Your task to perform on an android device: manage bookmarks in the chrome app Image 0: 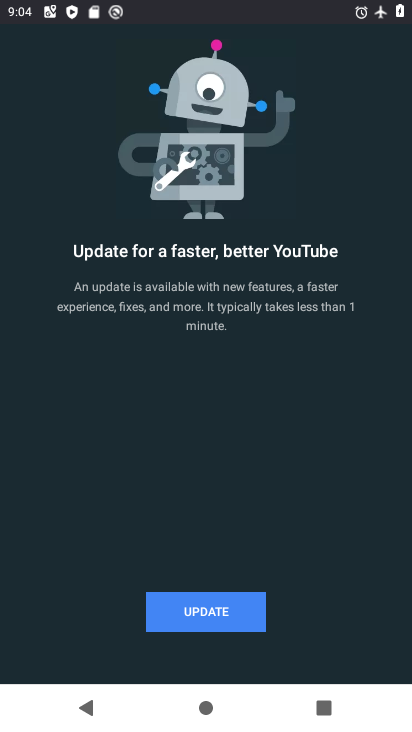
Step 0: press home button
Your task to perform on an android device: manage bookmarks in the chrome app Image 1: 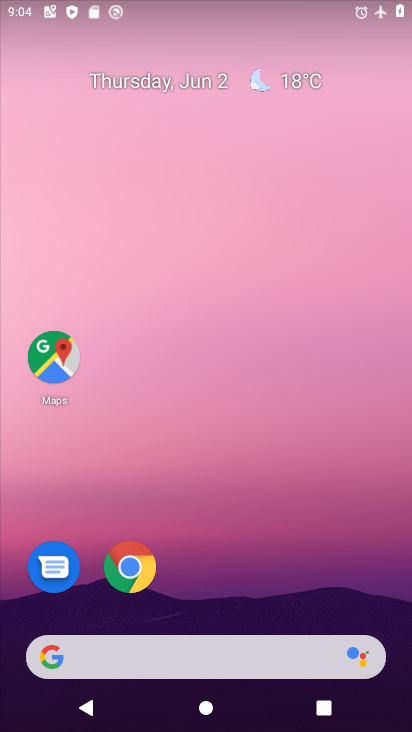
Step 1: click (130, 564)
Your task to perform on an android device: manage bookmarks in the chrome app Image 2: 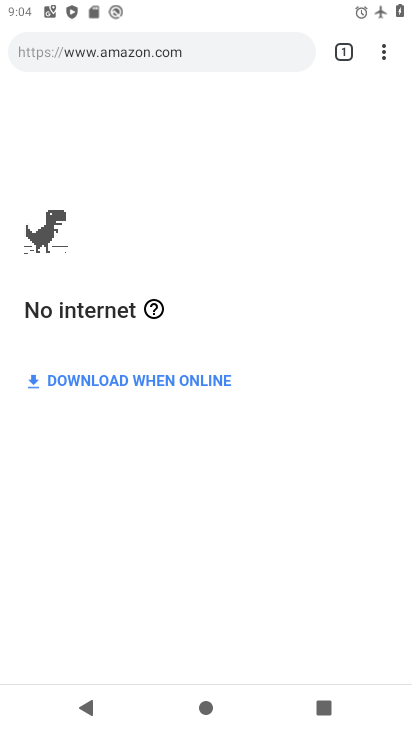
Step 2: click (384, 87)
Your task to perform on an android device: manage bookmarks in the chrome app Image 3: 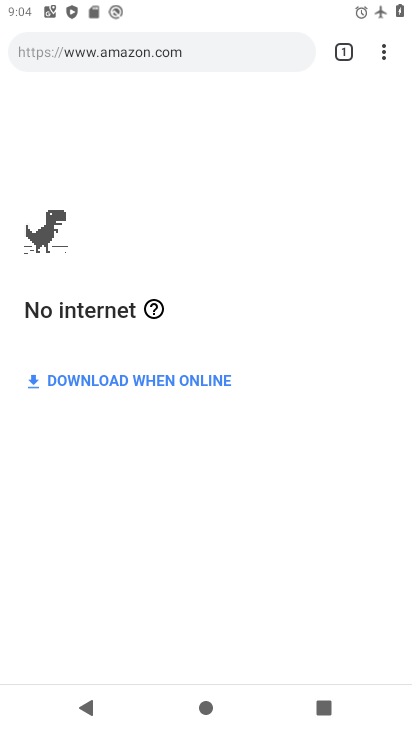
Step 3: click (381, 55)
Your task to perform on an android device: manage bookmarks in the chrome app Image 4: 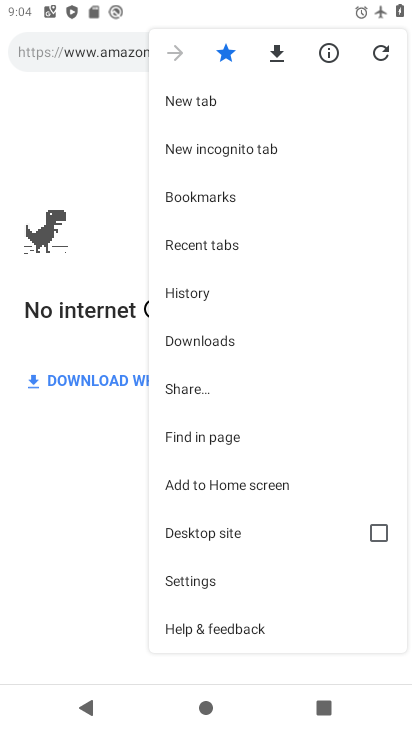
Step 4: click (212, 195)
Your task to perform on an android device: manage bookmarks in the chrome app Image 5: 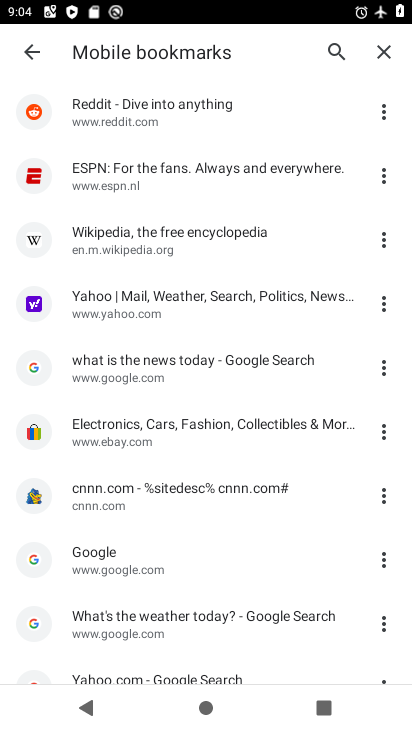
Step 5: click (378, 102)
Your task to perform on an android device: manage bookmarks in the chrome app Image 6: 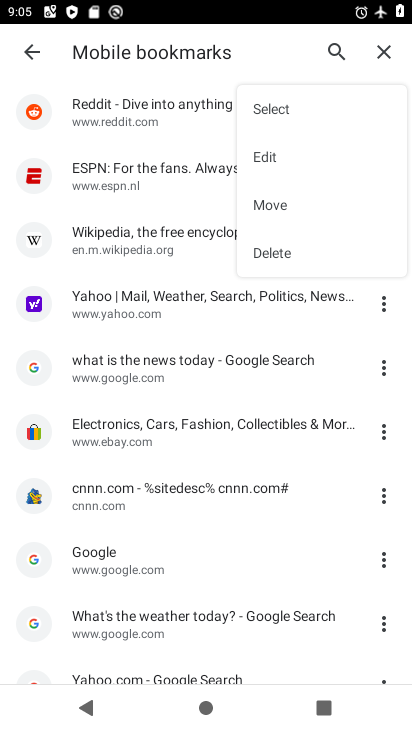
Step 6: click (284, 113)
Your task to perform on an android device: manage bookmarks in the chrome app Image 7: 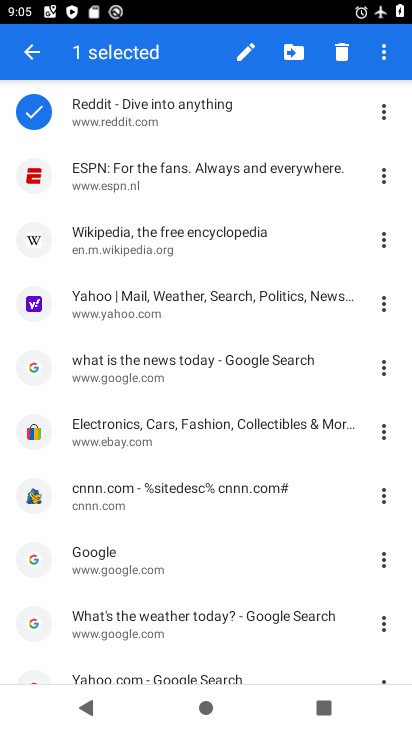
Step 7: click (86, 192)
Your task to perform on an android device: manage bookmarks in the chrome app Image 8: 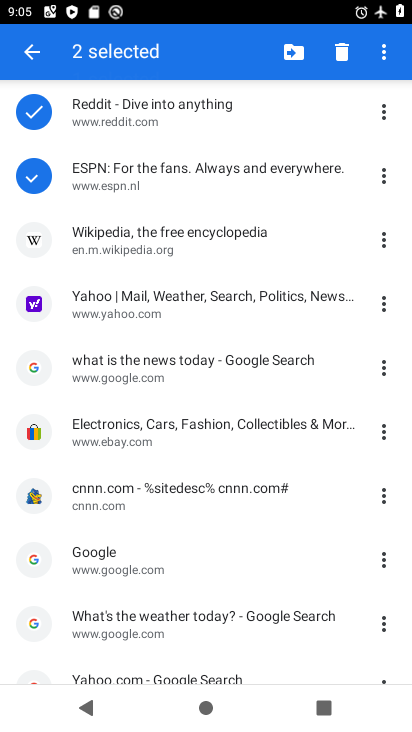
Step 8: click (73, 228)
Your task to perform on an android device: manage bookmarks in the chrome app Image 9: 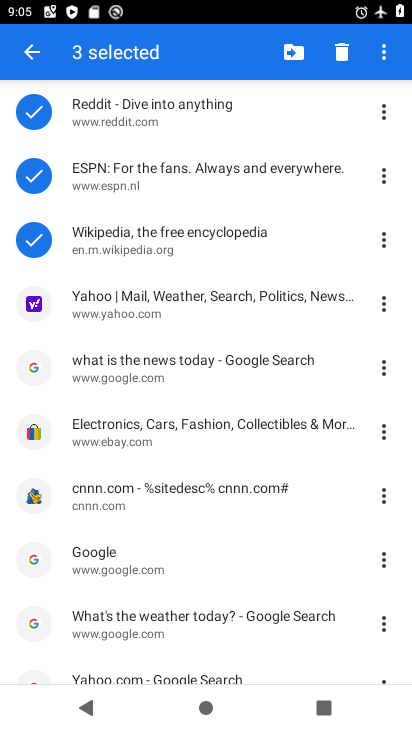
Step 9: click (63, 304)
Your task to perform on an android device: manage bookmarks in the chrome app Image 10: 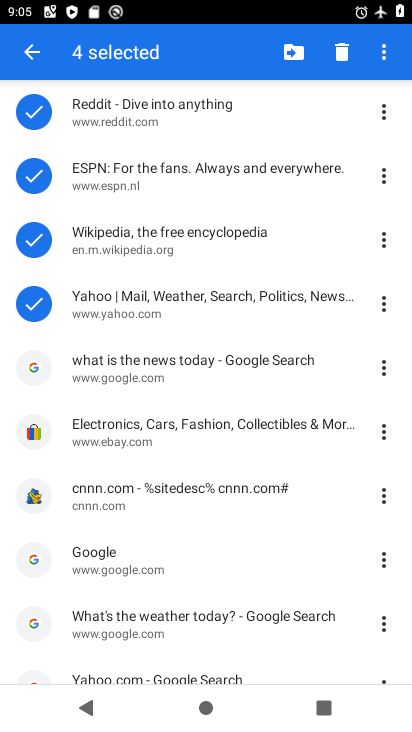
Step 10: click (36, 376)
Your task to perform on an android device: manage bookmarks in the chrome app Image 11: 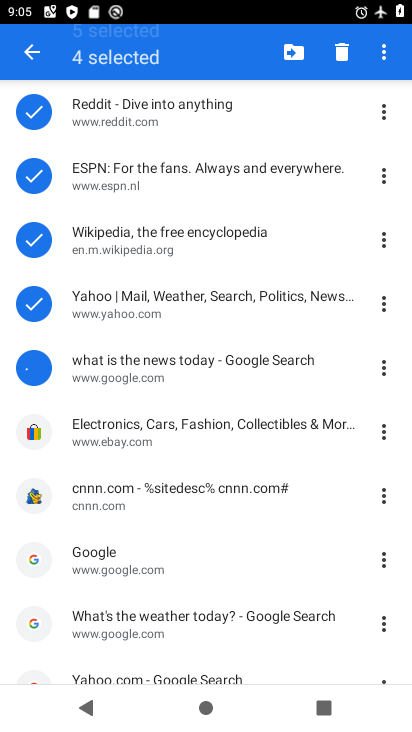
Step 11: click (42, 441)
Your task to perform on an android device: manage bookmarks in the chrome app Image 12: 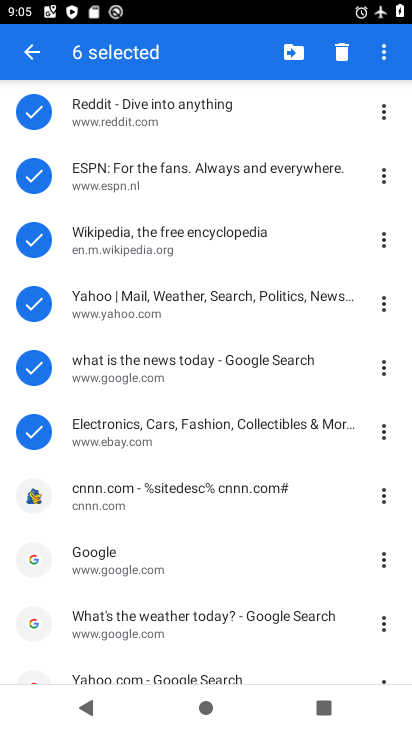
Step 12: click (44, 468)
Your task to perform on an android device: manage bookmarks in the chrome app Image 13: 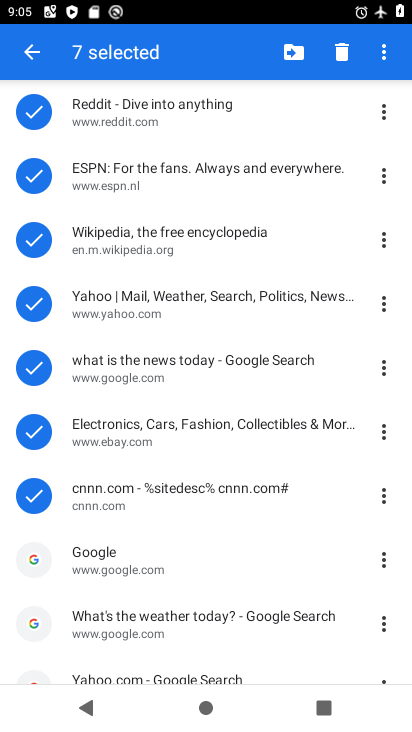
Step 13: click (29, 557)
Your task to perform on an android device: manage bookmarks in the chrome app Image 14: 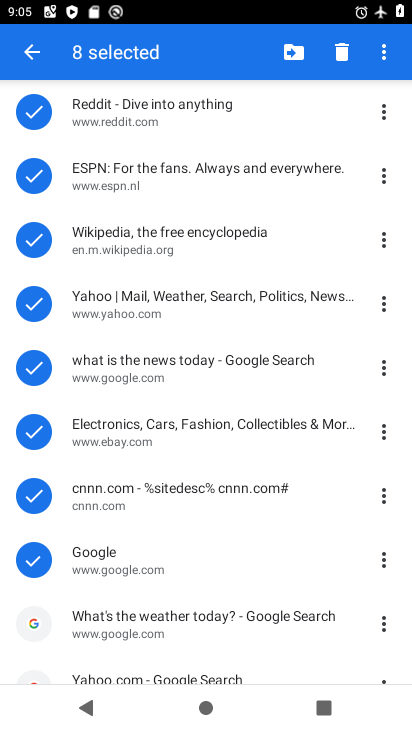
Step 14: click (34, 630)
Your task to perform on an android device: manage bookmarks in the chrome app Image 15: 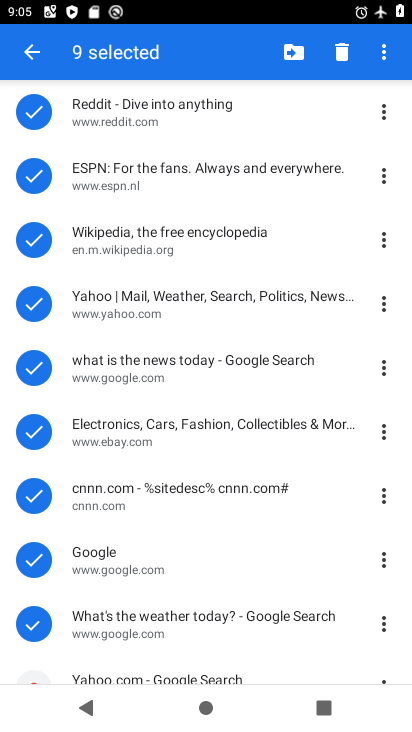
Step 15: drag from (115, 656) to (129, 419)
Your task to perform on an android device: manage bookmarks in the chrome app Image 16: 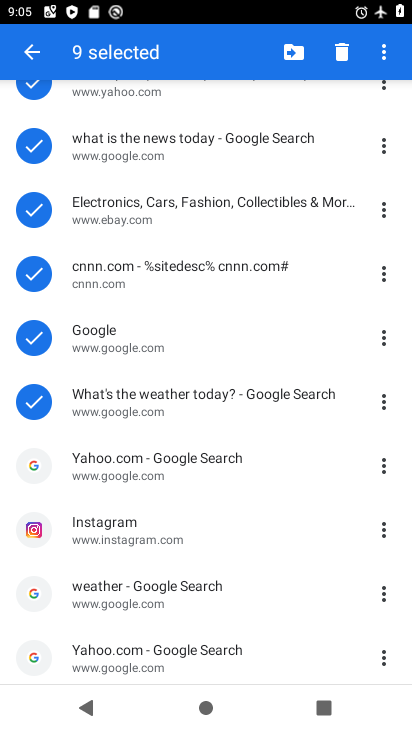
Step 16: click (78, 519)
Your task to perform on an android device: manage bookmarks in the chrome app Image 17: 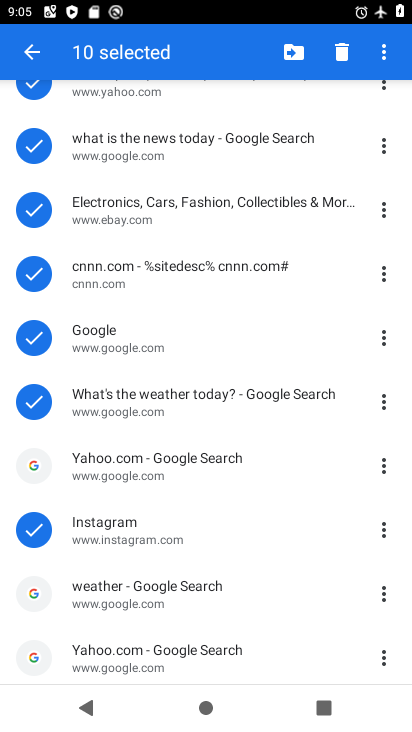
Step 17: click (90, 471)
Your task to perform on an android device: manage bookmarks in the chrome app Image 18: 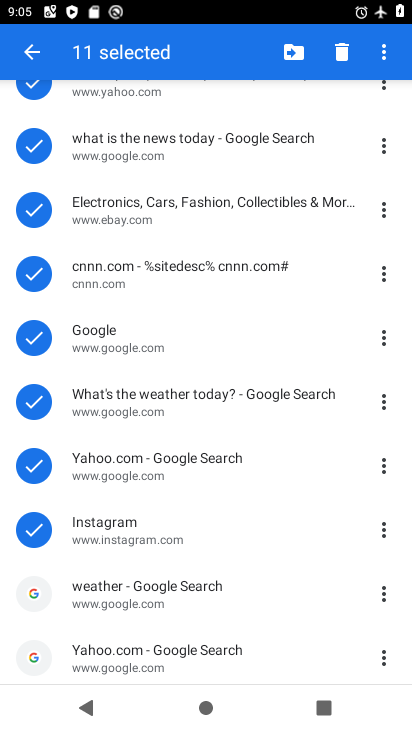
Step 18: click (66, 602)
Your task to perform on an android device: manage bookmarks in the chrome app Image 19: 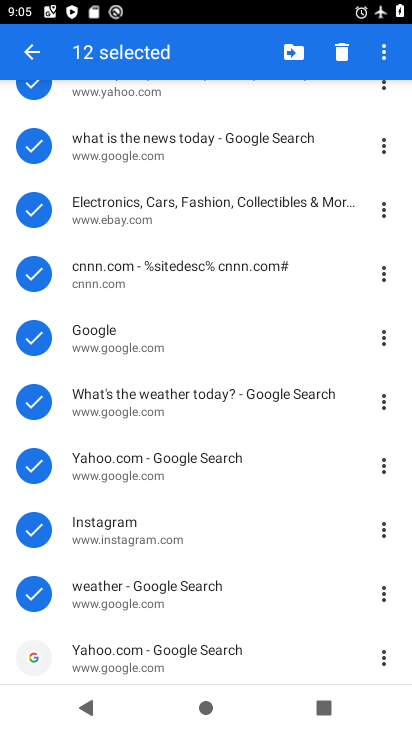
Step 19: click (69, 648)
Your task to perform on an android device: manage bookmarks in the chrome app Image 20: 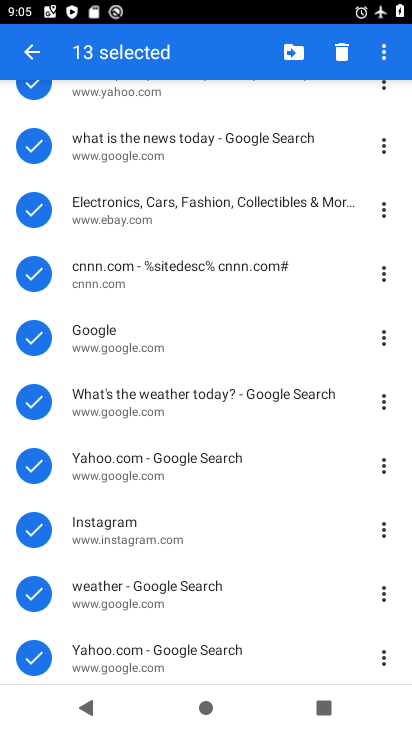
Step 20: click (296, 41)
Your task to perform on an android device: manage bookmarks in the chrome app Image 21: 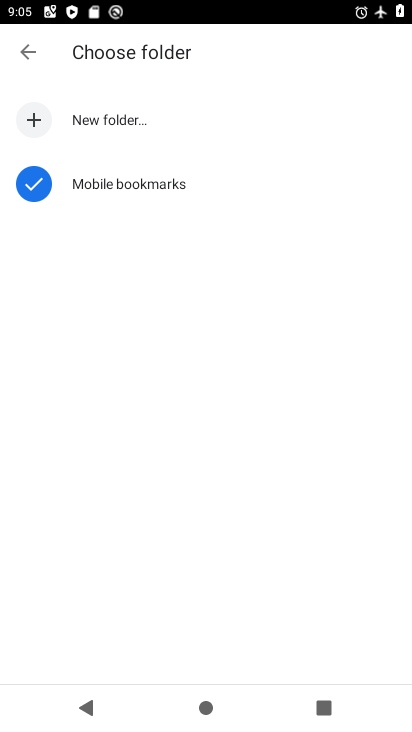
Step 21: click (104, 123)
Your task to perform on an android device: manage bookmarks in the chrome app Image 22: 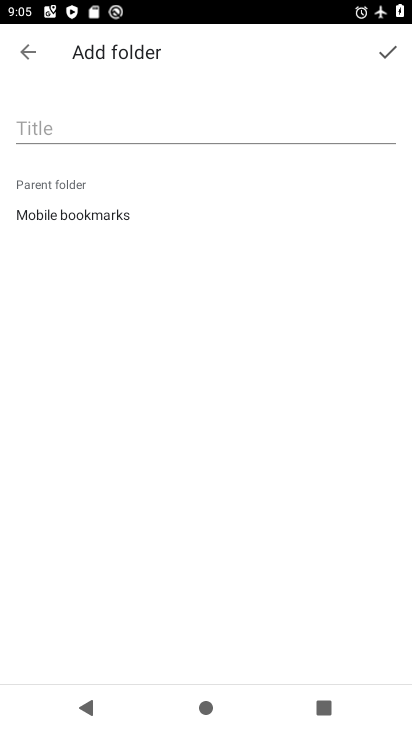
Step 22: type "aale"
Your task to perform on an android device: manage bookmarks in the chrome app Image 23: 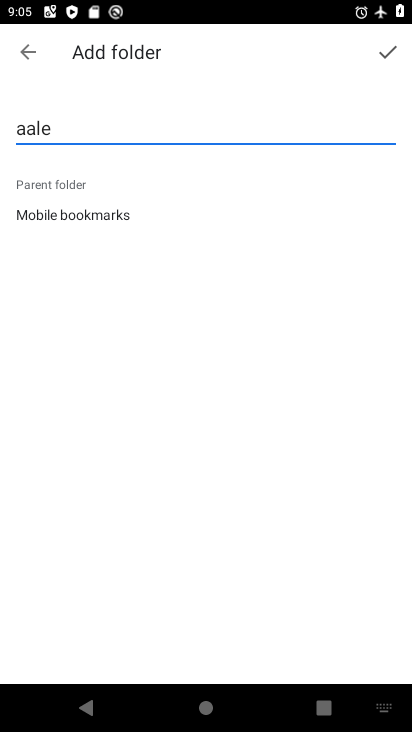
Step 23: click (381, 50)
Your task to perform on an android device: manage bookmarks in the chrome app Image 24: 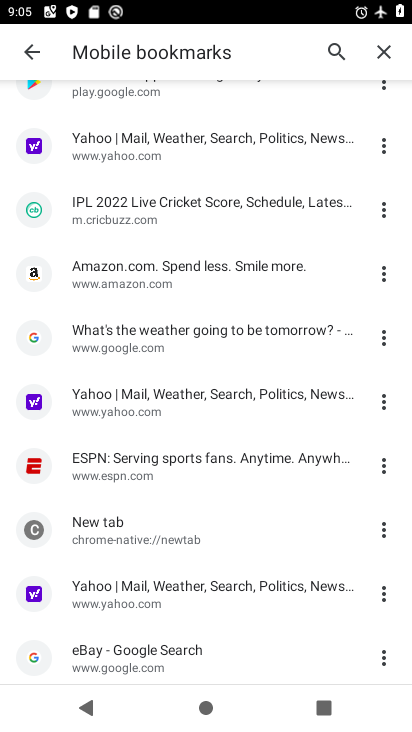
Step 24: task complete